Your task to perform on an android device: Open calendar and show me the third week of next month Image 0: 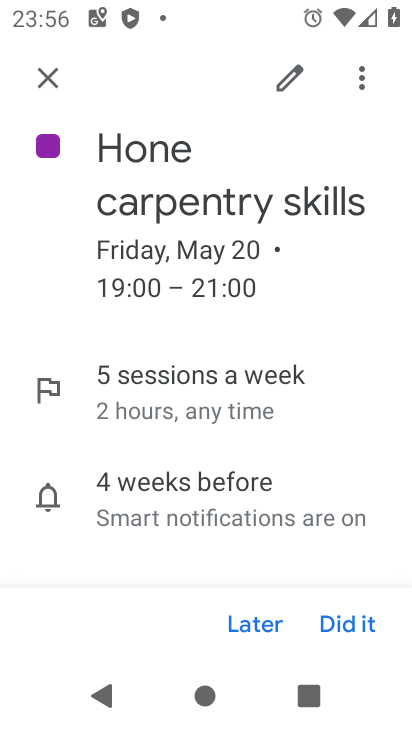
Step 0: click (43, 81)
Your task to perform on an android device: Open calendar and show me the third week of next month Image 1: 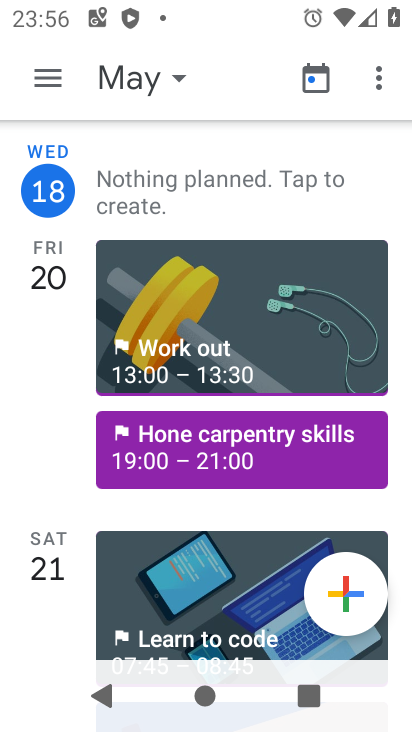
Step 1: click (181, 77)
Your task to perform on an android device: Open calendar and show me the third week of next month Image 2: 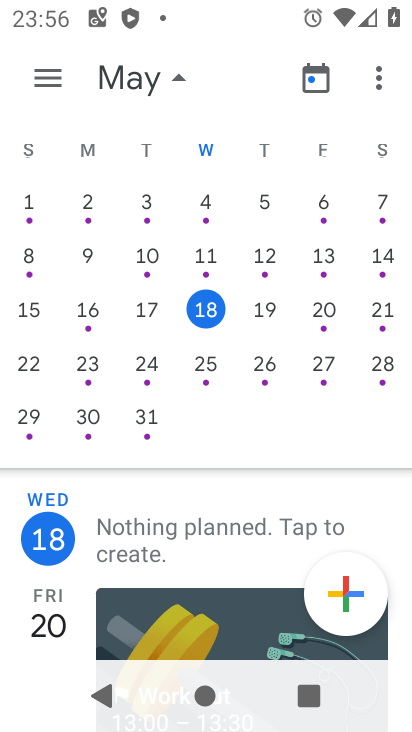
Step 2: drag from (343, 261) to (27, 354)
Your task to perform on an android device: Open calendar and show me the third week of next month Image 3: 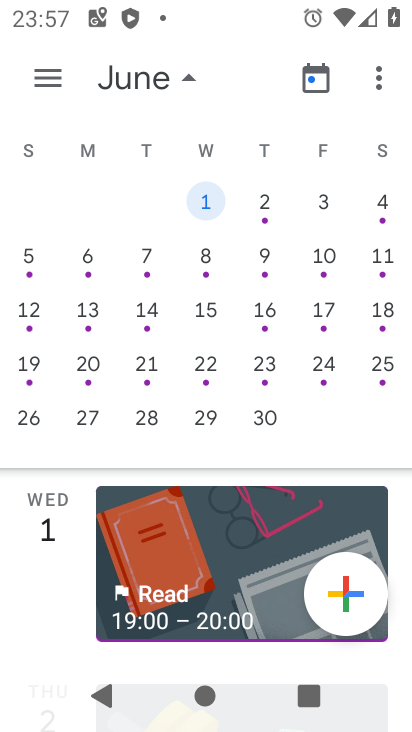
Step 3: click (52, 83)
Your task to perform on an android device: Open calendar and show me the third week of next month Image 4: 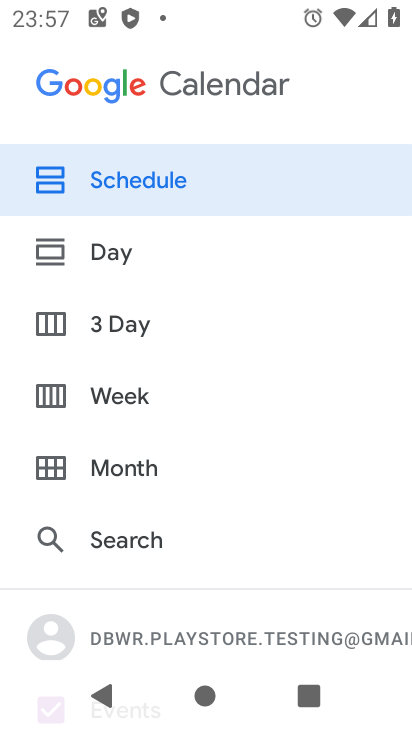
Step 4: click (94, 391)
Your task to perform on an android device: Open calendar and show me the third week of next month Image 5: 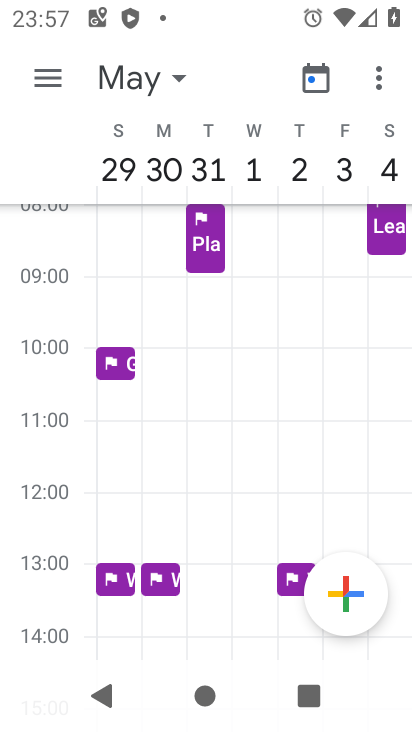
Step 5: task complete